Your task to perform on an android device: open a bookmark in the chrome app Image 0: 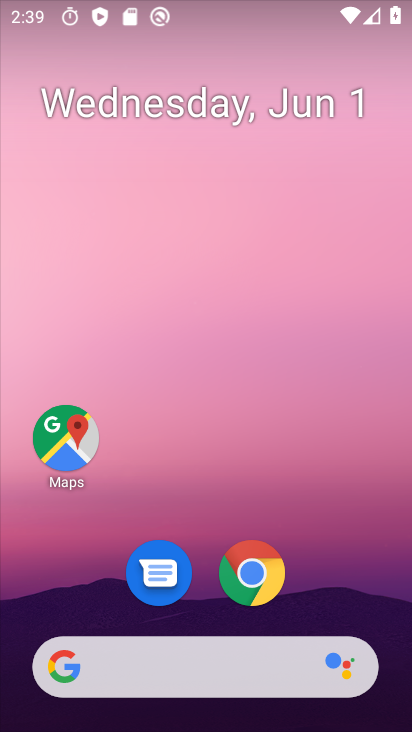
Step 0: click (258, 561)
Your task to perform on an android device: open a bookmark in the chrome app Image 1: 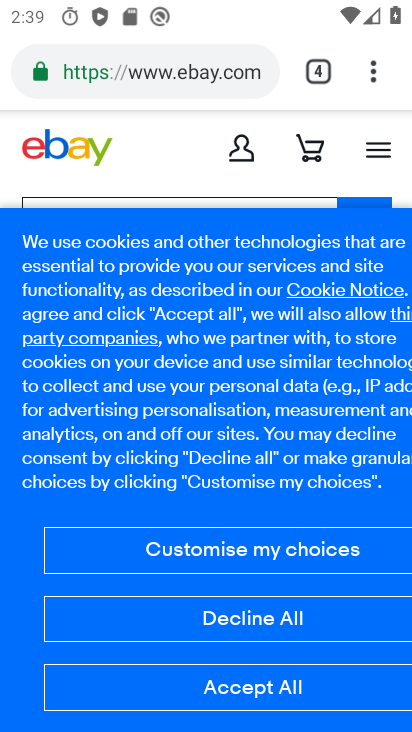
Step 1: task complete